Your task to perform on an android device: Open internet settings Image 0: 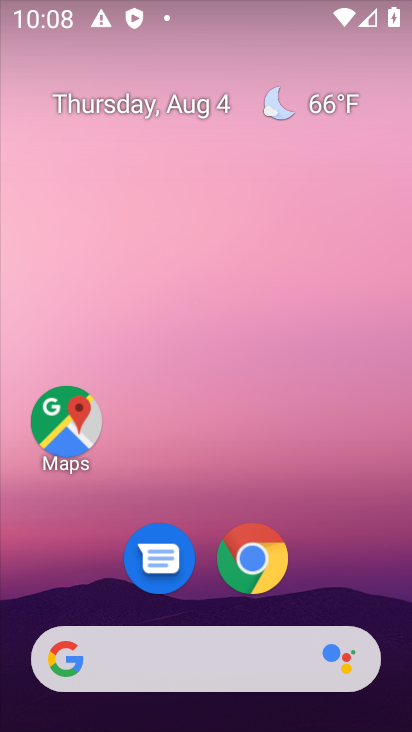
Step 0: drag from (346, 555) to (197, 15)
Your task to perform on an android device: Open internet settings Image 1: 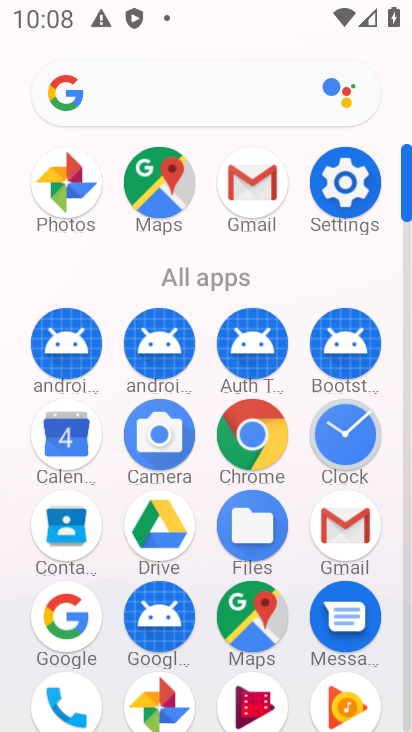
Step 1: drag from (194, 564) to (172, 279)
Your task to perform on an android device: Open internet settings Image 2: 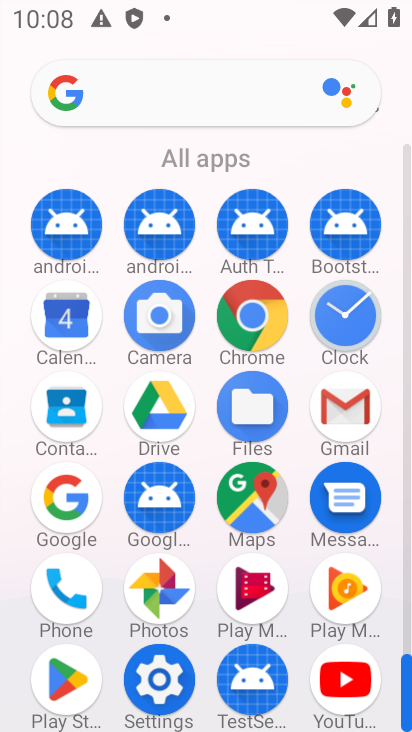
Step 2: click (155, 683)
Your task to perform on an android device: Open internet settings Image 3: 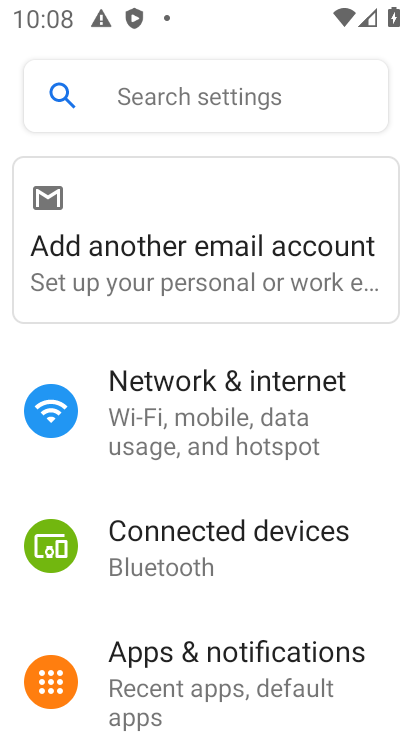
Step 3: drag from (365, 595) to (318, 402)
Your task to perform on an android device: Open internet settings Image 4: 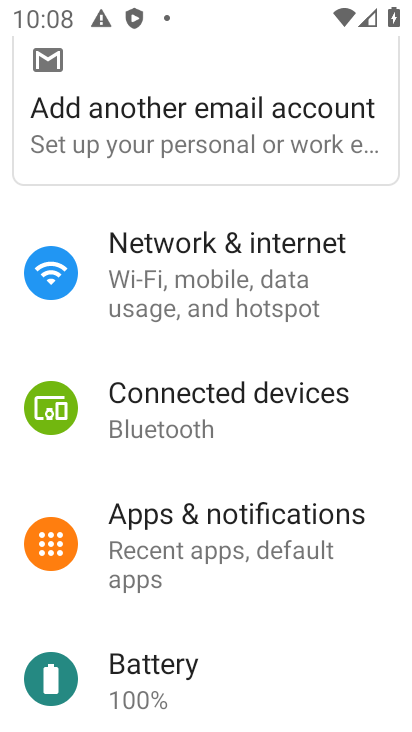
Step 4: click (231, 300)
Your task to perform on an android device: Open internet settings Image 5: 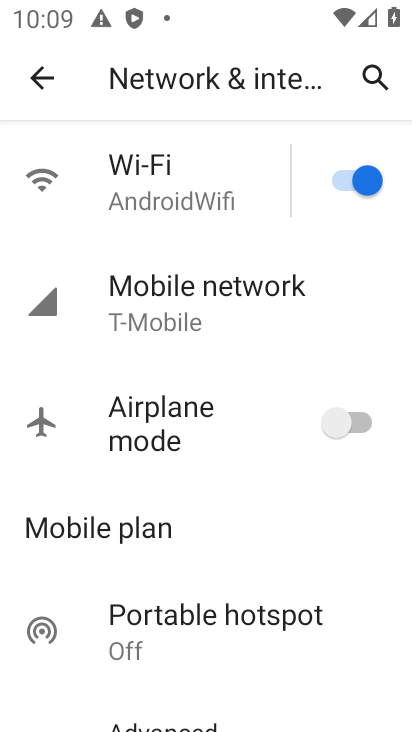
Step 5: drag from (256, 502) to (204, 146)
Your task to perform on an android device: Open internet settings Image 6: 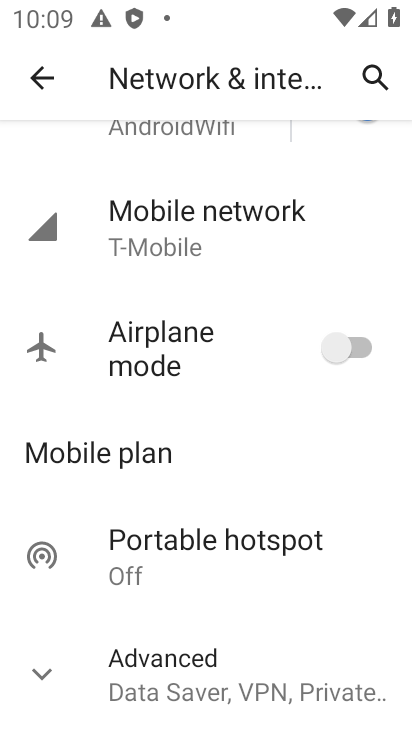
Step 6: click (113, 676)
Your task to perform on an android device: Open internet settings Image 7: 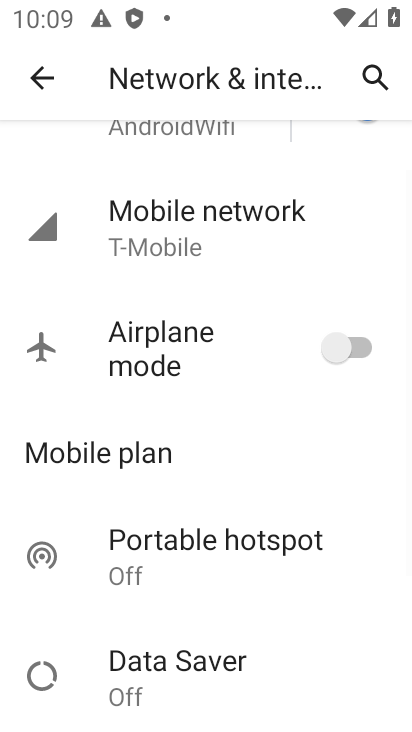
Step 7: task complete